Your task to perform on an android device: turn on translation in the chrome app Image 0: 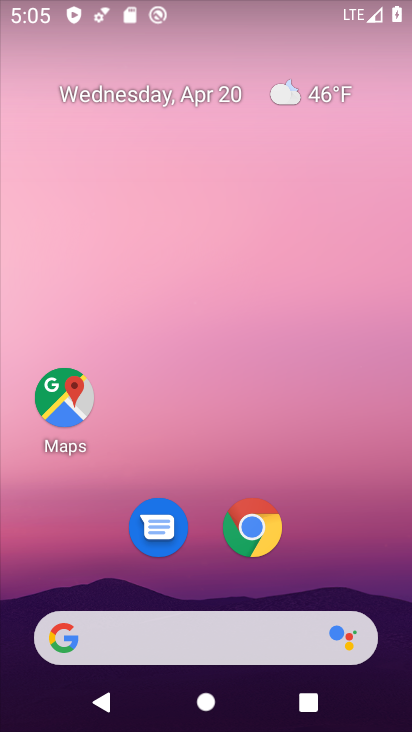
Step 0: click (259, 541)
Your task to perform on an android device: turn on translation in the chrome app Image 1: 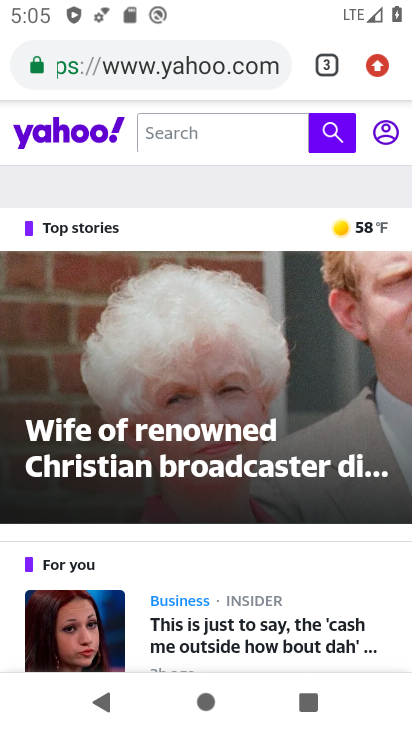
Step 1: click (375, 70)
Your task to perform on an android device: turn on translation in the chrome app Image 2: 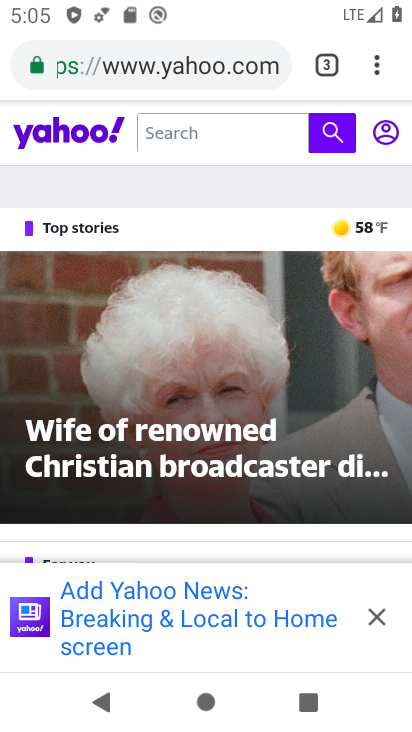
Step 2: click (373, 71)
Your task to perform on an android device: turn on translation in the chrome app Image 3: 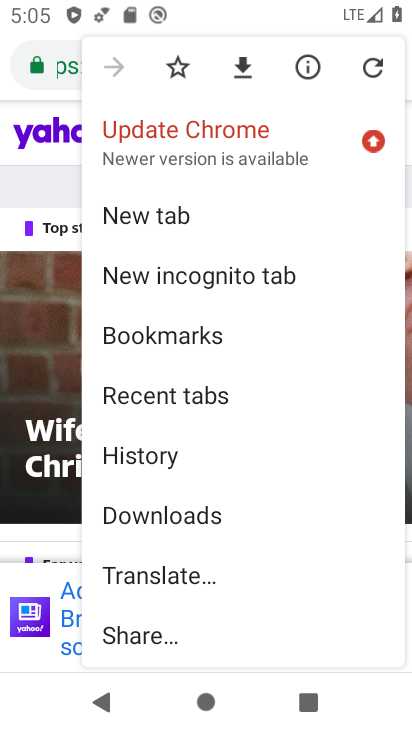
Step 3: drag from (283, 570) to (289, 195)
Your task to perform on an android device: turn on translation in the chrome app Image 4: 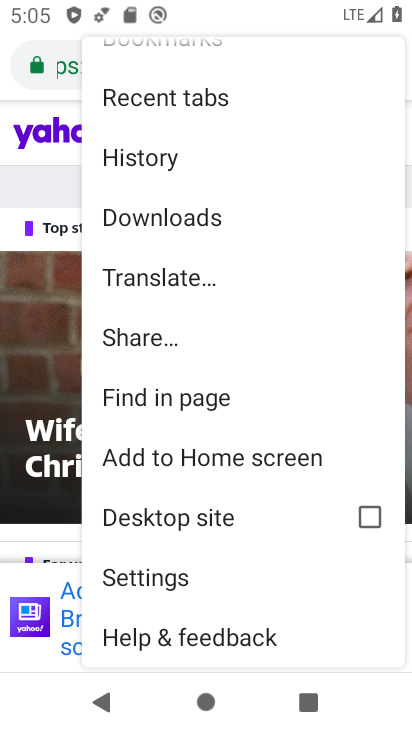
Step 4: click (220, 577)
Your task to perform on an android device: turn on translation in the chrome app Image 5: 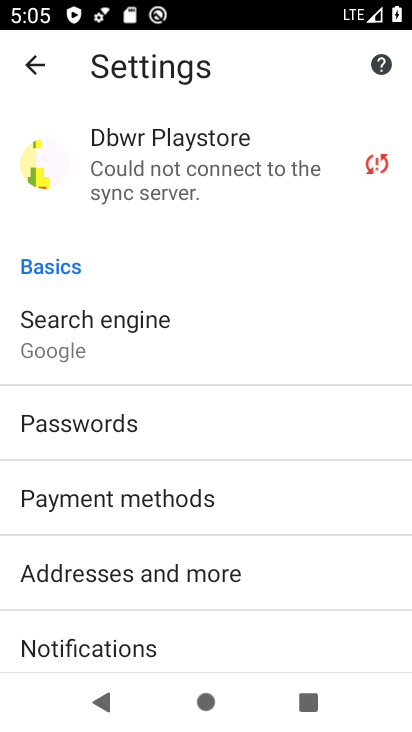
Step 5: drag from (241, 580) to (255, 221)
Your task to perform on an android device: turn on translation in the chrome app Image 6: 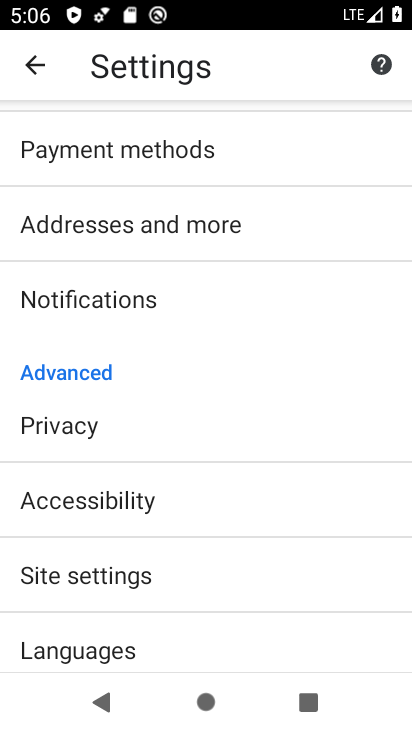
Step 6: click (170, 650)
Your task to perform on an android device: turn on translation in the chrome app Image 7: 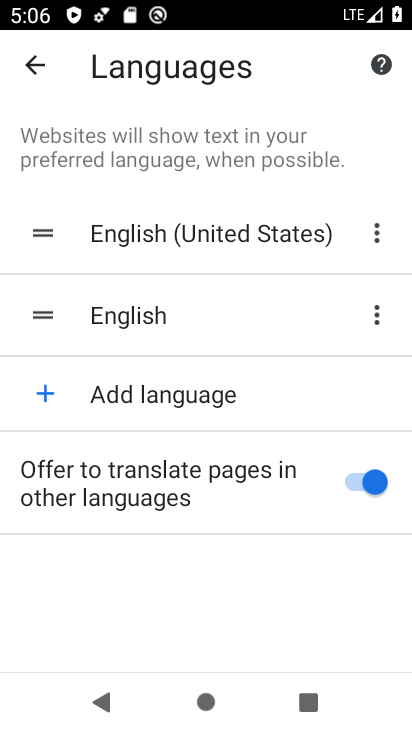
Step 7: task complete